Your task to perform on an android device: open app "Flipkart Online Shopping App" Image 0: 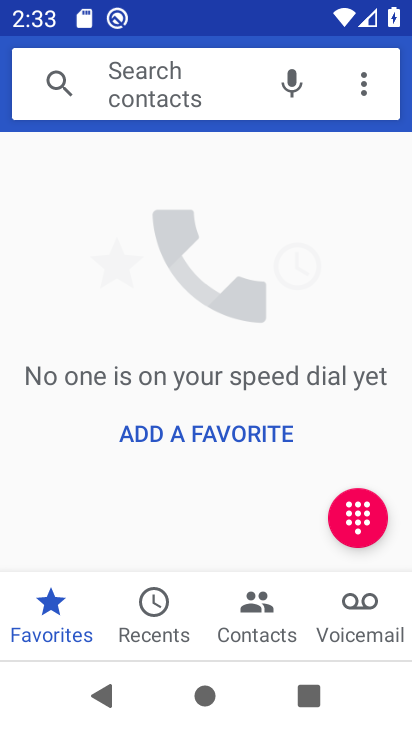
Step 0: press home button
Your task to perform on an android device: open app "Flipkart Online Shopping App" Image 1: 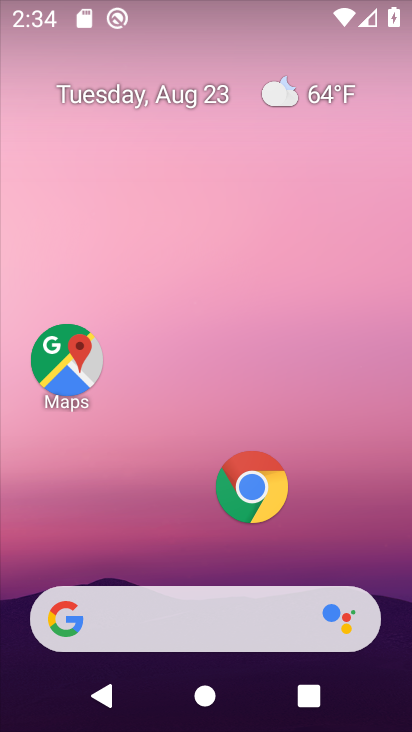
Step 1: drag from (179, 559) to (255, 158)
Your task to perform on an android device: open app "Flipkart Online Shopping App" Image 2: 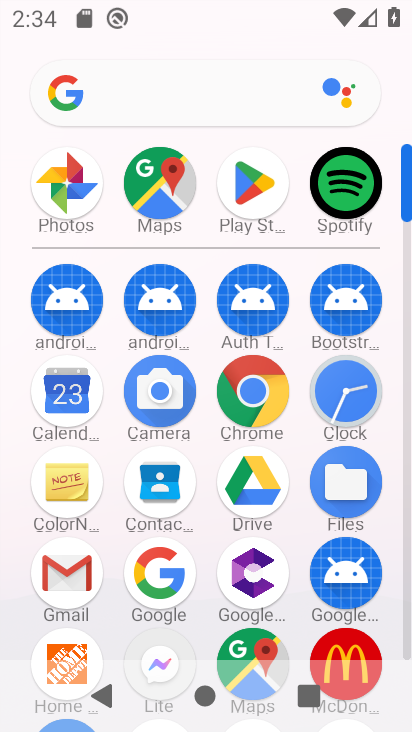
Step 2: click (248, 191)
Your task to perform on an android device: open app "Flipkart Online Shopping App" Image 3: 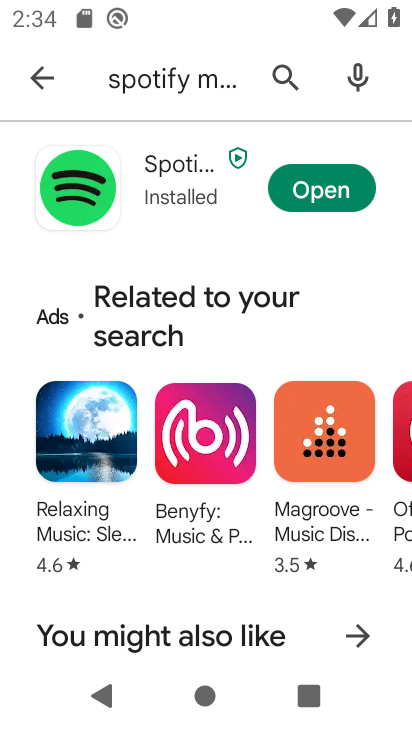
Step 3: click (36, 71)
Your task to perform on an android device: open app "Flipkart Online Shopping App" Image 4: 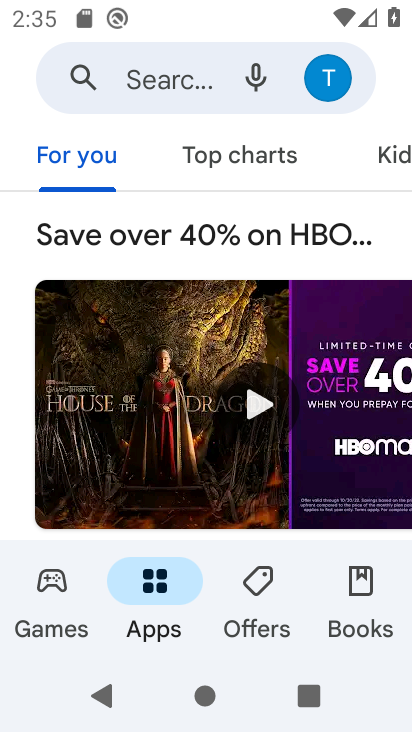
Step 4: click (194, 65)
Your task to perform on an android device: open app "Flipkart Online Shopping App" Image 5: 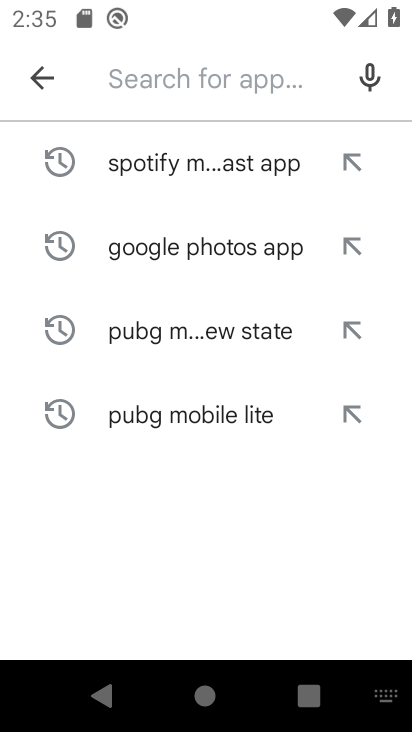
Step 5: type "Flipkart Online Shopping App "
Your task to perform on an android device: open app "Flipkart Online Shopping App" Image 6: 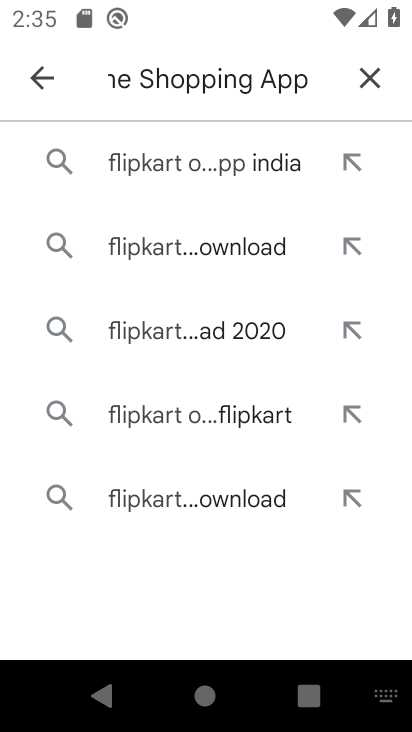
Step 6: click (243, 179)
Your task to perform on an android device: open app "Flipkart Online Shopping App" Image 7: 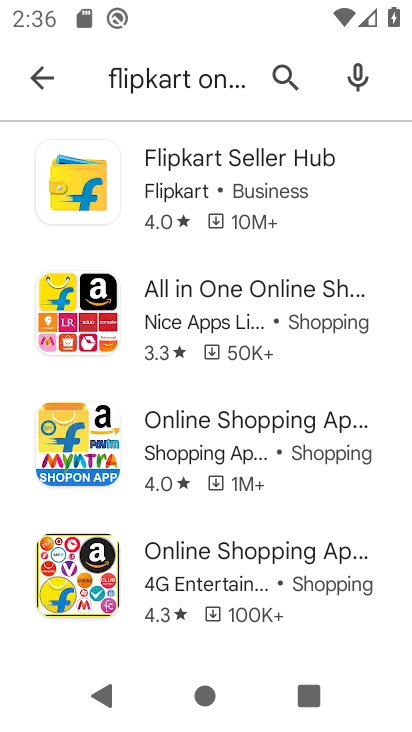
Step 7: click (167, 176)
Your task to perform on an android device: open app "Flipkart Online Shopping App" Image 8: 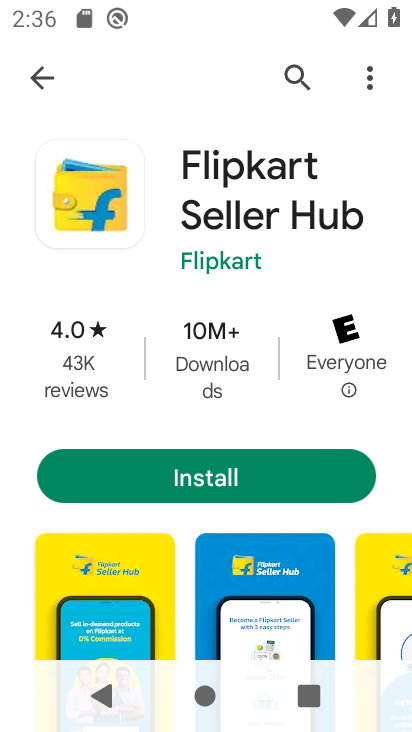
Step 8: click (250, 493)
Your task to perform on an android device: open app "Flipkart Online Shopping App" Image 9: 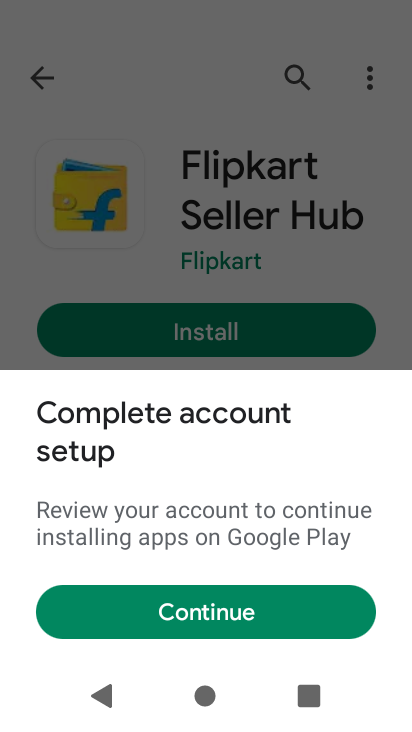
Step 9: task complete